Your task to perform on an android device: manage bookmarks in the chrome app Image 0: 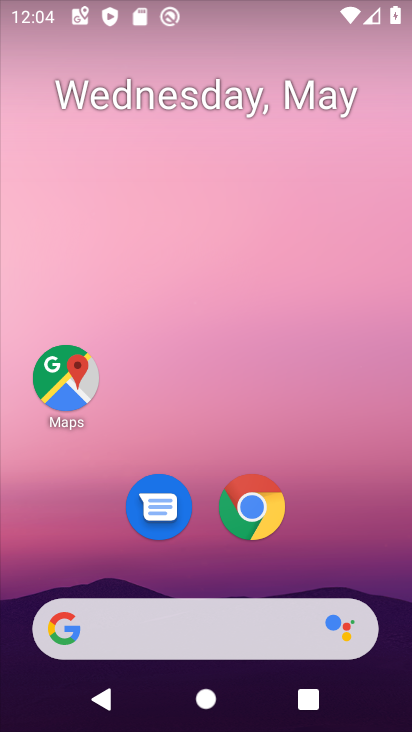
Step 0: click (230, 504)
Your task to perform on an android device: manage bookmarks in the chrome app Image 1: 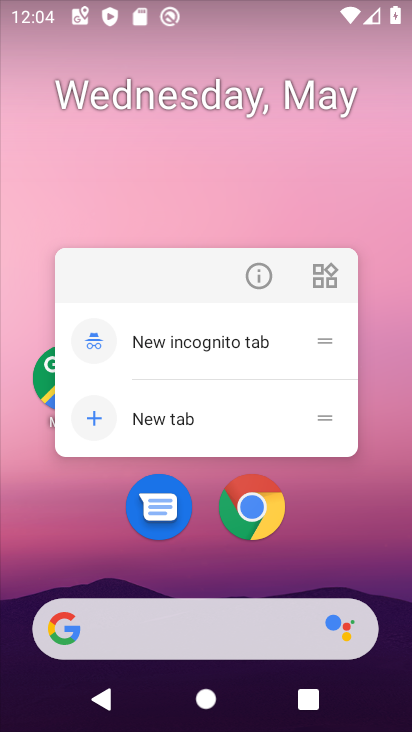
Step 1: click (263, 484)
Your task to perform on an android device: manage bookmarks in the chrome app Image 2: 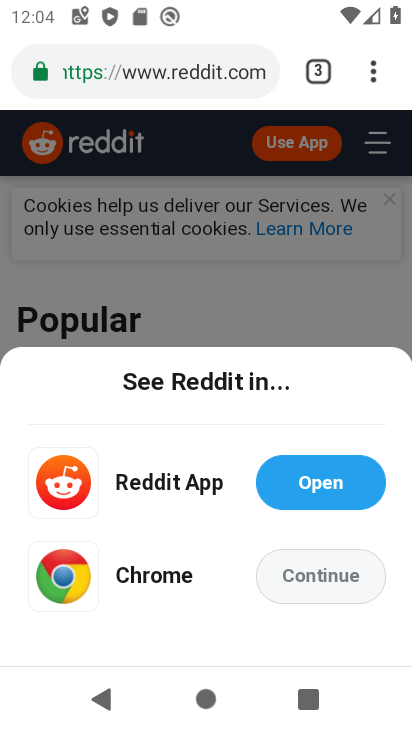
Step 2: click (379, 65)
Your task to perform on an android device: manage bookmarks in the chrome app Image 3: 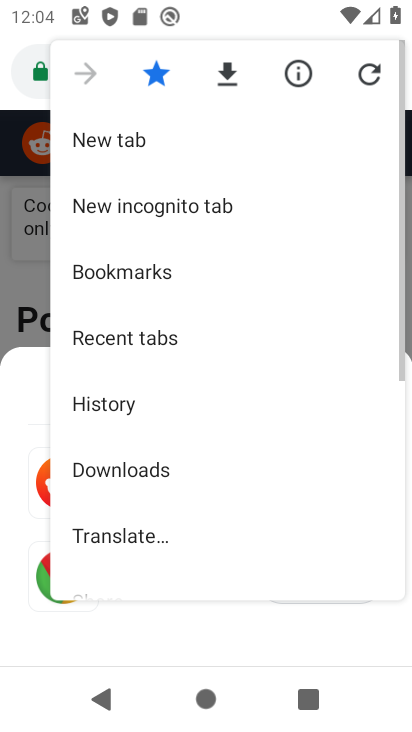
Step 3: click (128, 280)
Your task to perform on an android device: manage bookmarks in the chrome app Image 4: 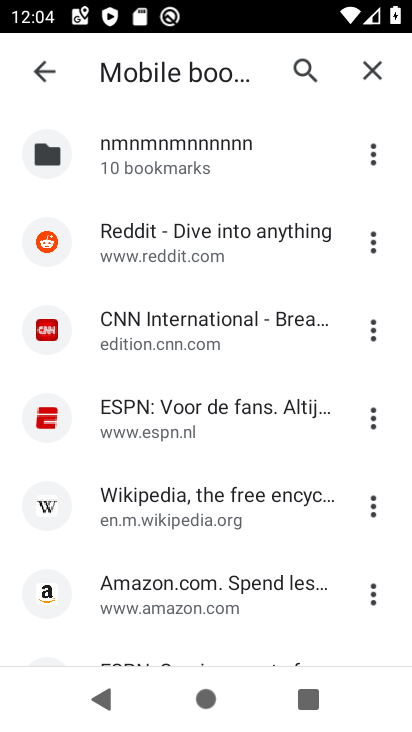
Step 4: click (146, 155)
Your task to perform on an android device: manage bookmarks in the chrome app Image 5: 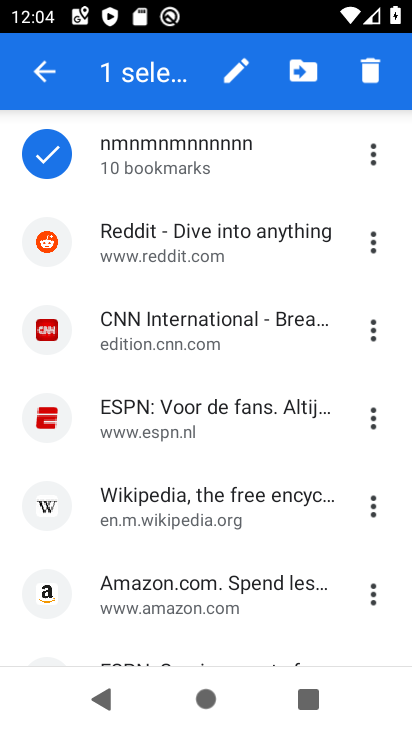
Step 5: click (63, 154)
Your task to perform on an android device: manage bookmarks in the chrome app Image 6: 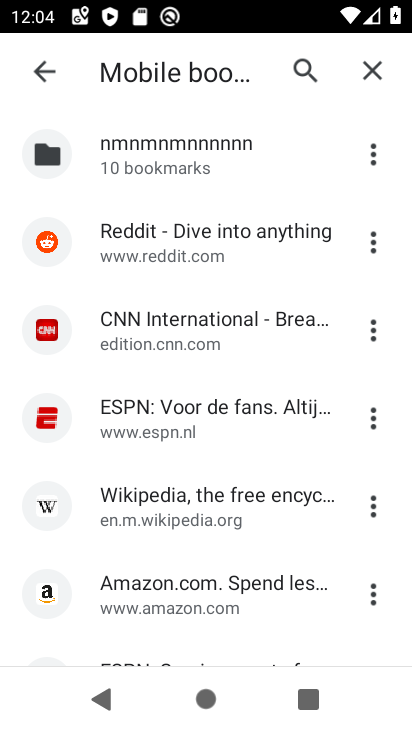
Step 6: click (204, 319)
Your task to perform on an android device: manage bookmarks in the chrome app Image 7: 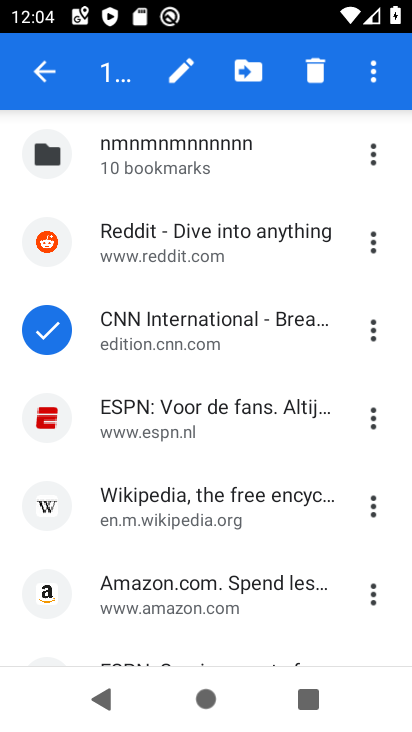
Step 7: click (235, 62)
Your task to perform on an android device: manage bookmarks in the chrome app Image 8: 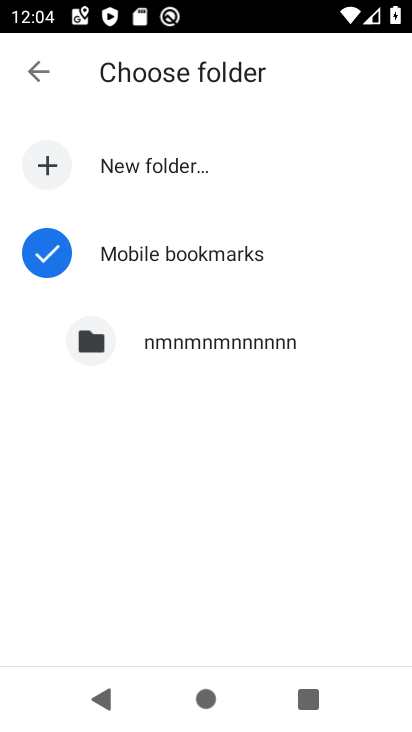
Step 8: click (180, 342)
Your task to perform on an android device: manage bookmarks in the chrome app Image 9: 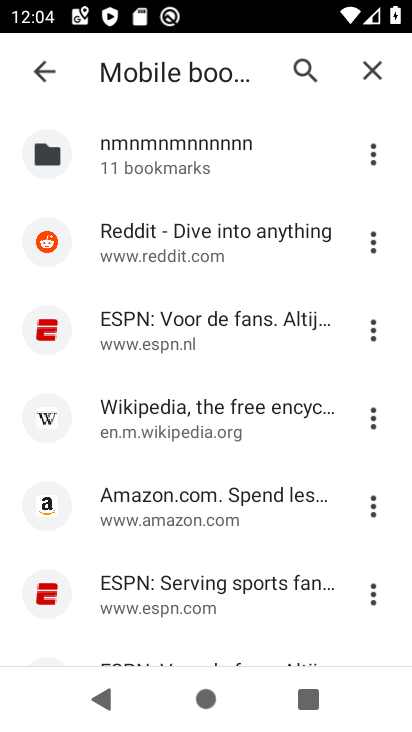
Step 9: task complete